Your task to perform on an android device: Open eBay Image 0: 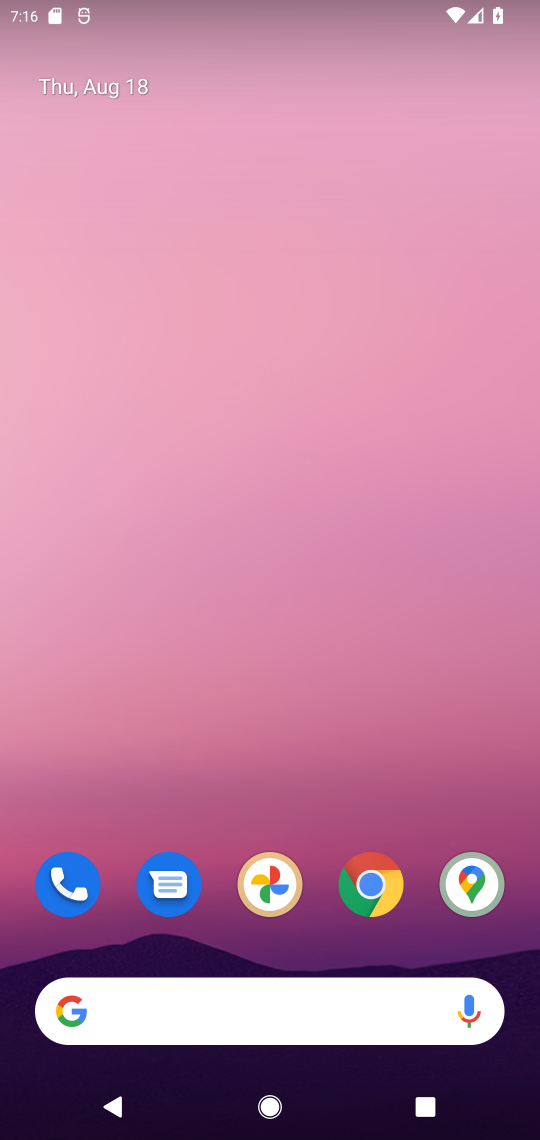
Step 0: click (265, 1022)
Your task to perform on an android device: Open eBay Image 1: 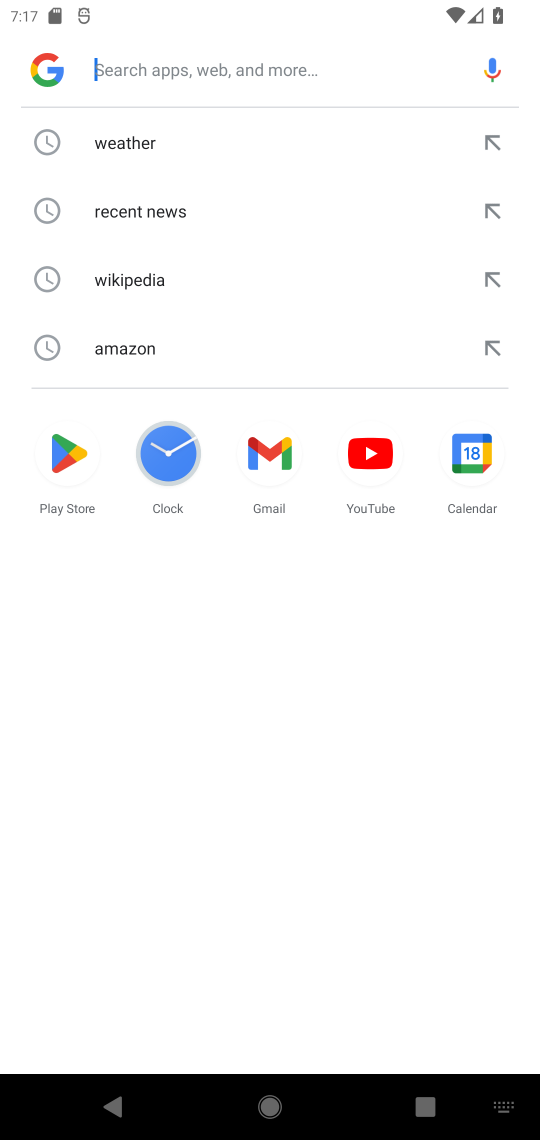
Step 1: type "ebay"
Your task to perform on an android device: Open eBay Image 2: 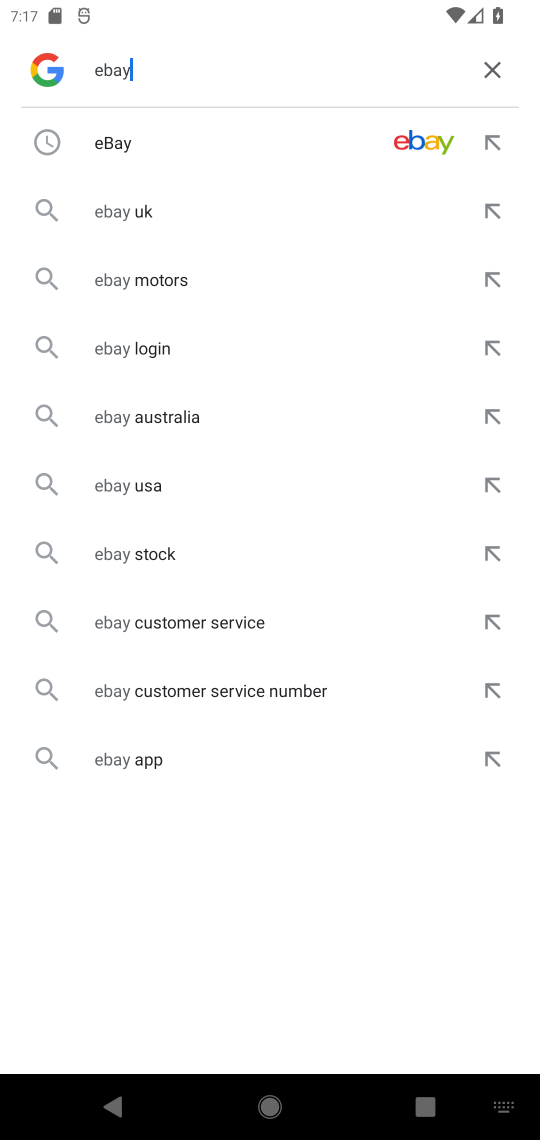
Step 2: click (245, 155)
Your task to perform on an android device: Open eBay Image 3: 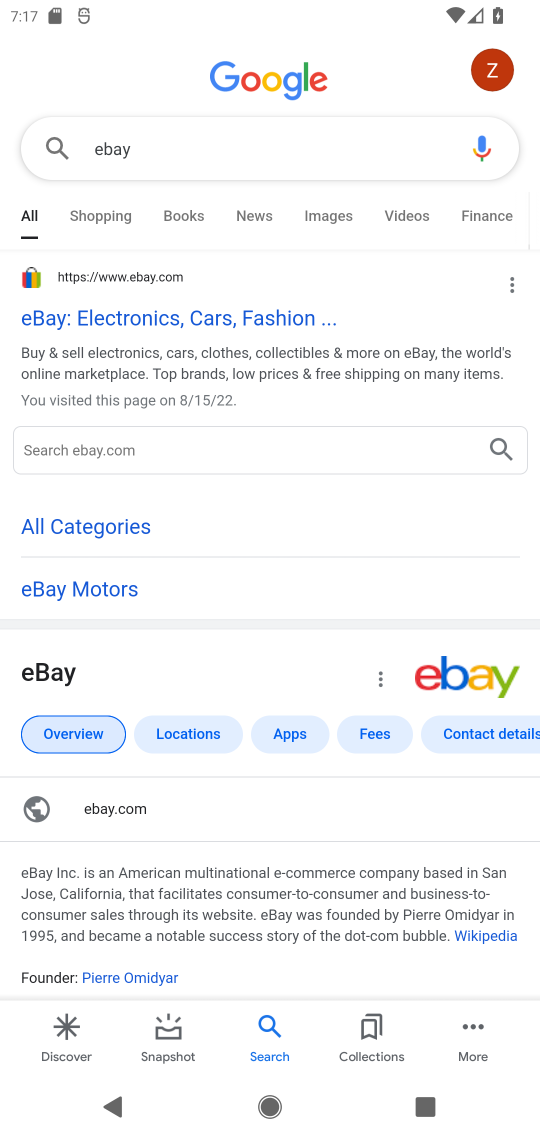
Step 3: click (68, 312)
Your task to perform on an android device: Open eBay Image 4: 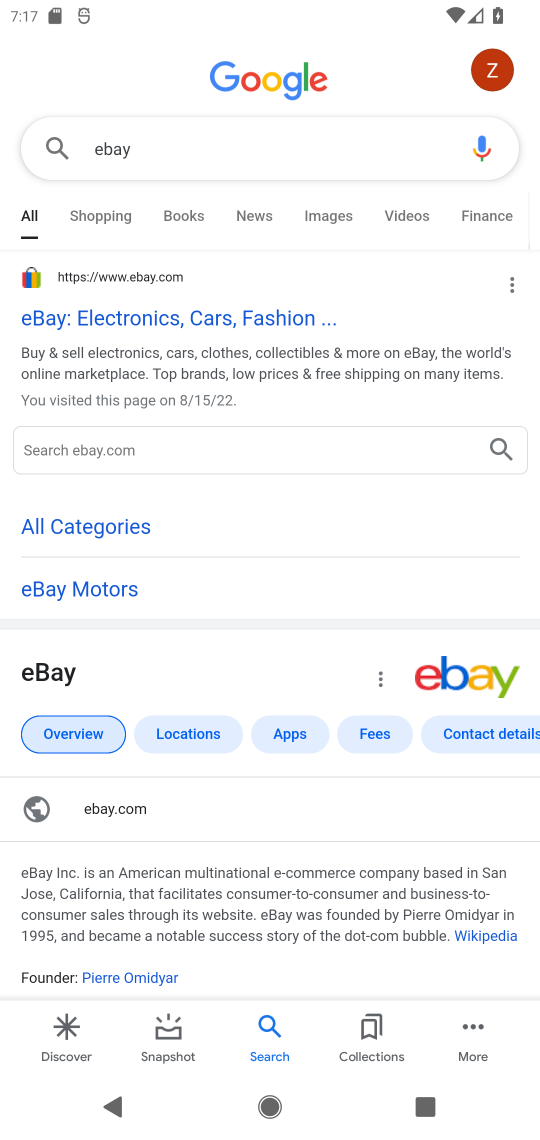
Step 4: click (100, 316)
Your task to perform on an android device: Open eBay Image 5: 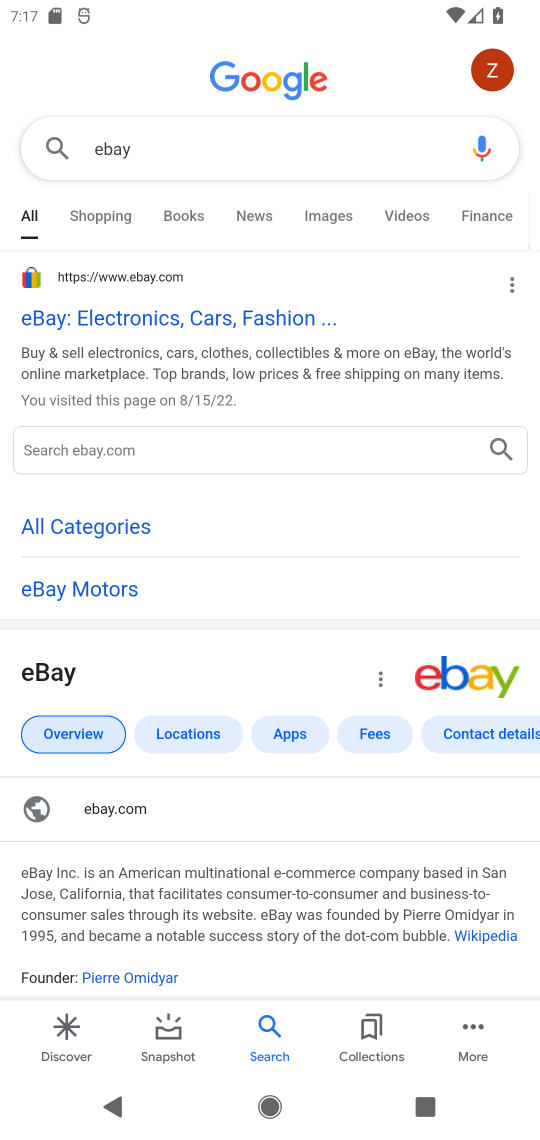
Step 5: click (100, 316)
Your task to perform on an android device: Open eBay Image 6: 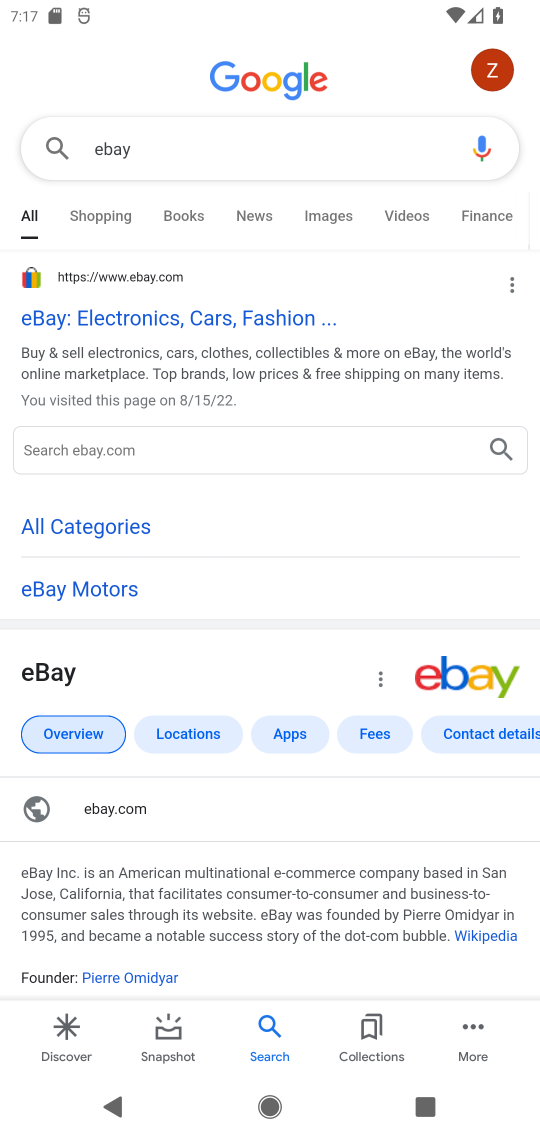
Step 6: click (100, 316)
Your task to perform on an android device: Open eBay Image 7: 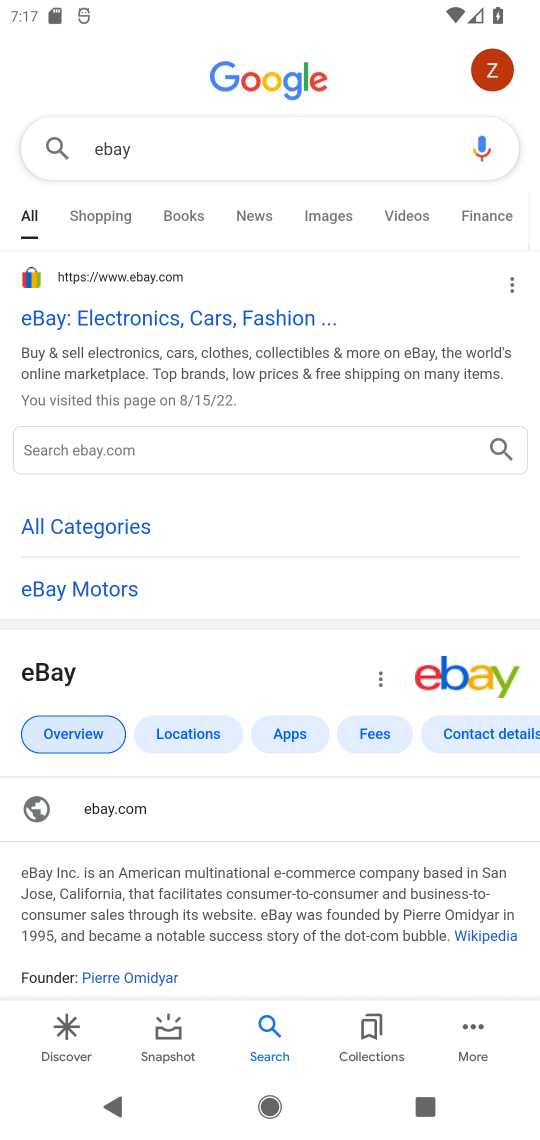
Step 7: click (100, 316)
Your task to perform on an android device: Open eBay Image 8: 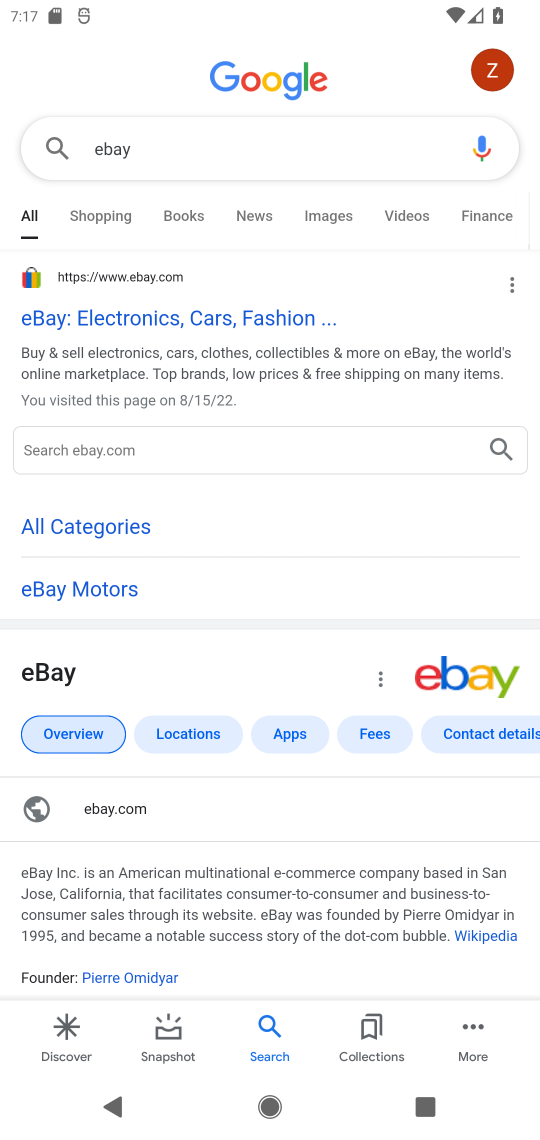
Step 8: click (100, 316)
Your task to perform on an android device: Open eBay Image 9: 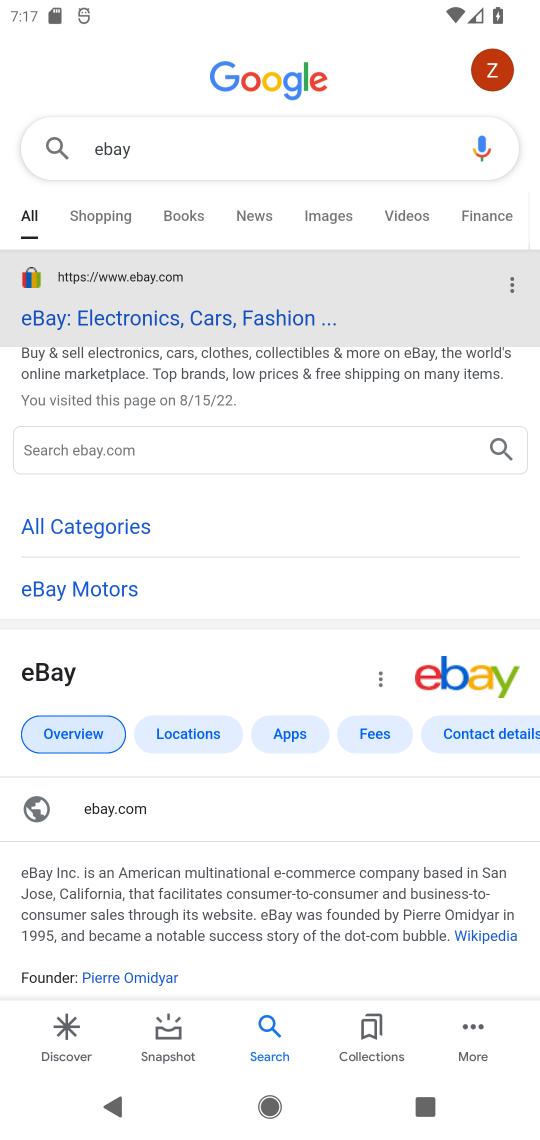
Step 9: click (100, 316)
Your task to perform on an android device: Open eBay Image 10: 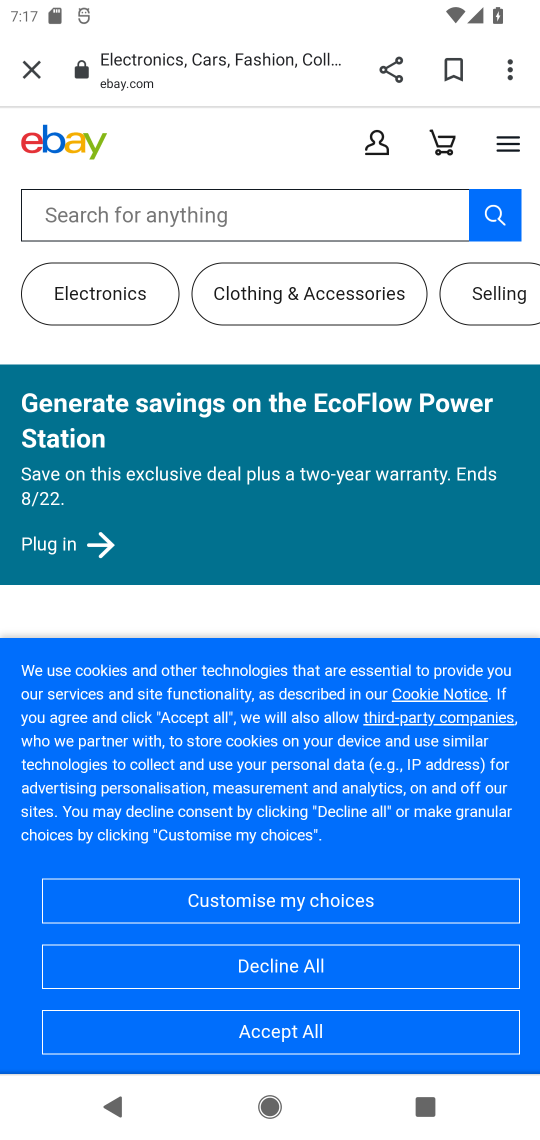
Step 10: task complete